Your task to perform on an android device: Clear all items from cart on target. Image 0: 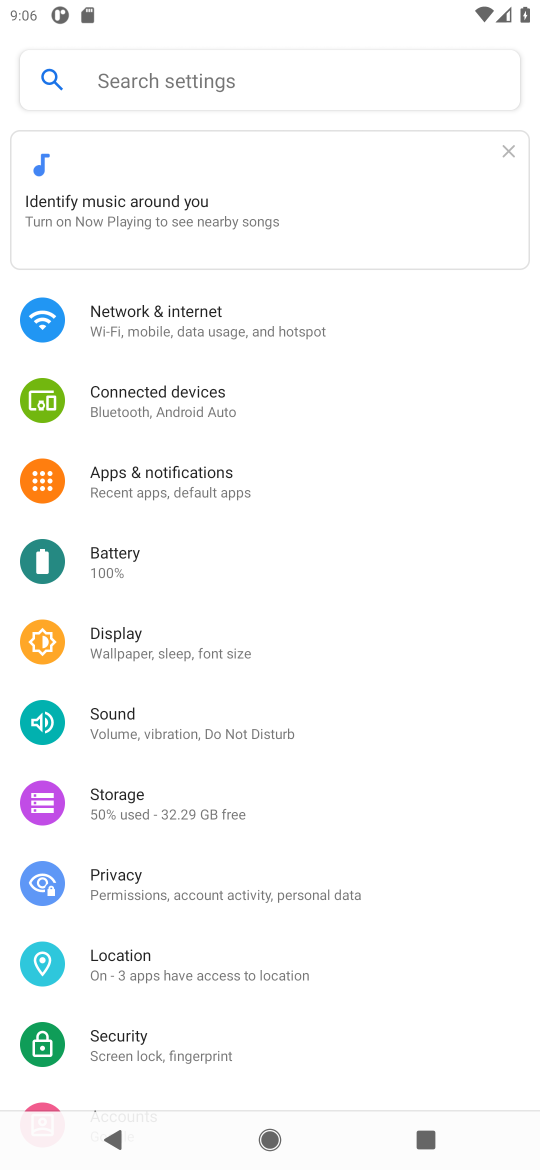
Step 0: press home button
Your task to perform on an android device: Clear all items from cart on target. Image 1: 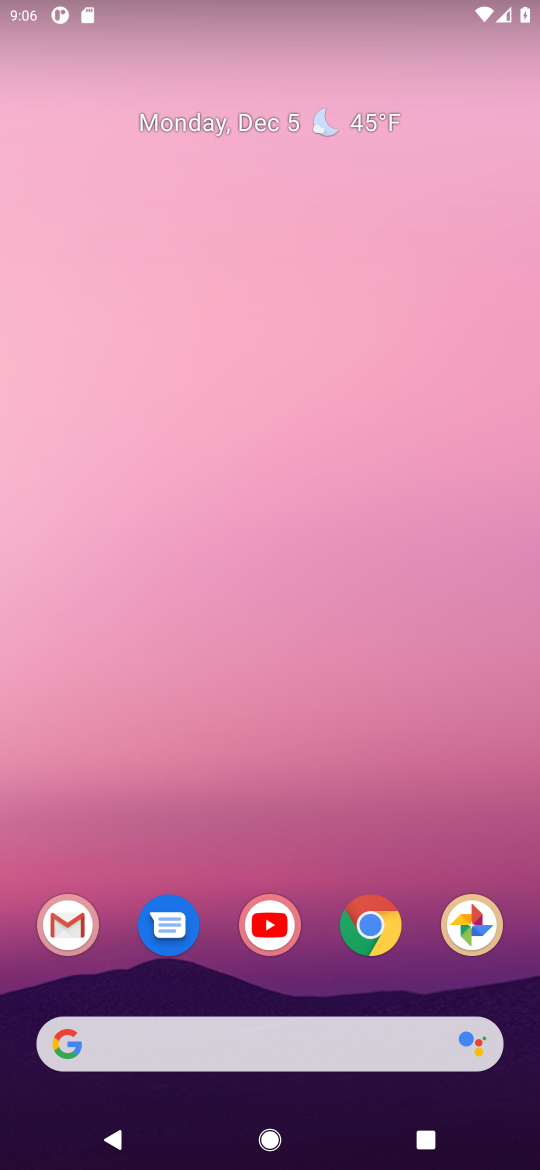
Step 1: click (376, 925)
Your task to perform on an android device: Clear all items from cart on target. Image 2: 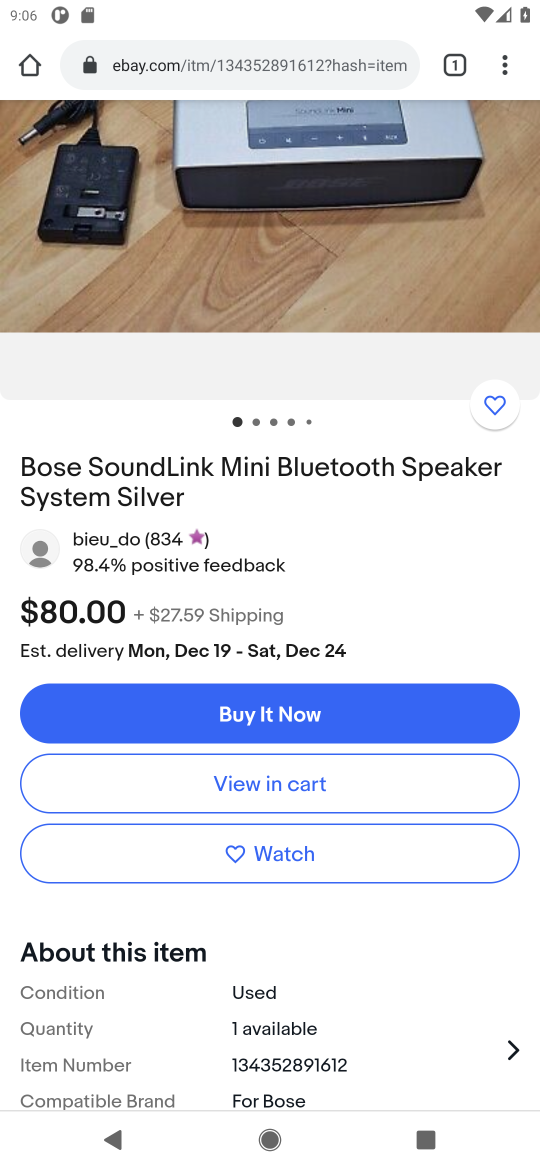
Step 2: click (249, 62)
Your task to perform on an android device: Clear all items from cart on target. Image 3: 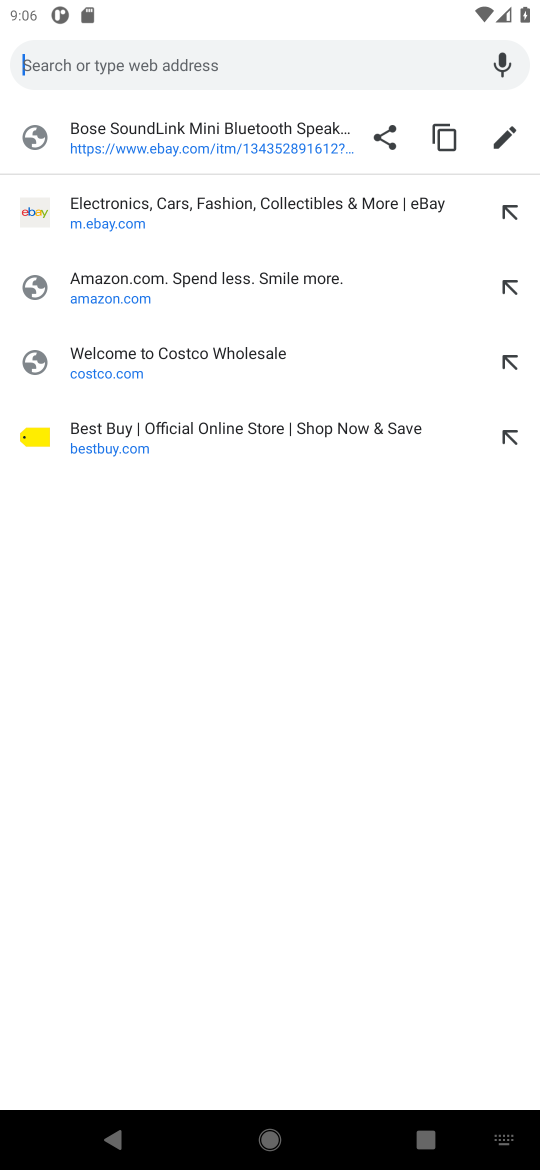
Step 3: type "target.com"
Your task to perform on an android device: Clear all items from cart on target. Image 4: 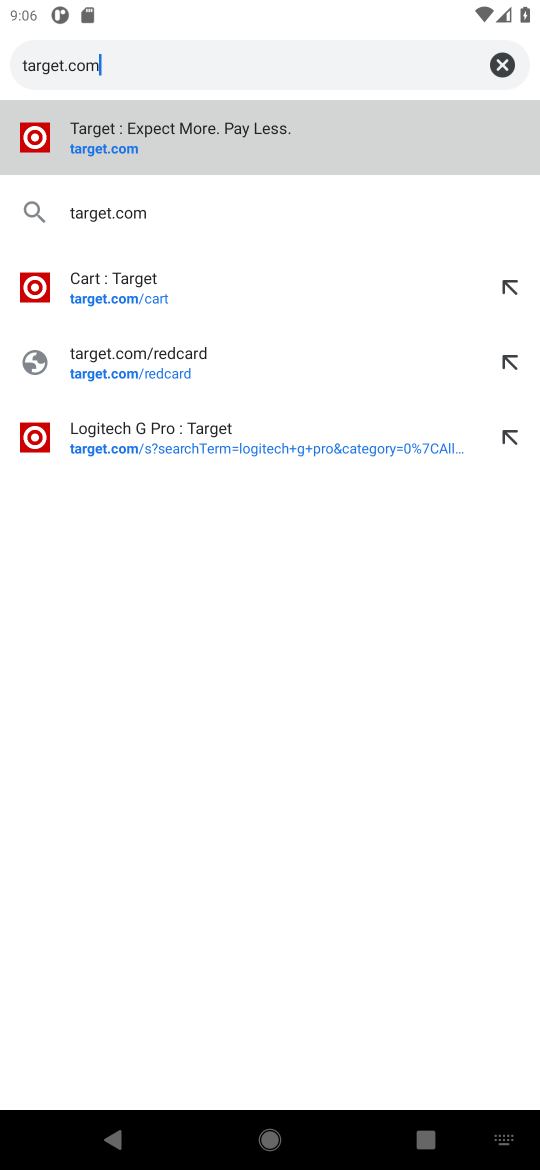
Step 4: click (95, 150)
Your task to perform on an android device: Clear all items from cart on target. Image 5: 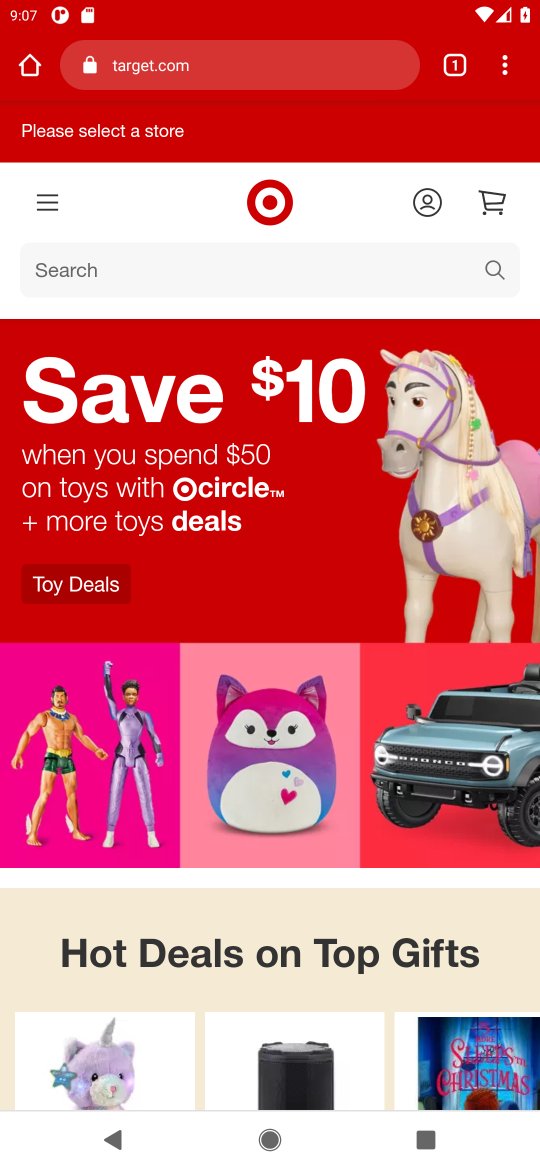
Step 5: click (483, 199)
Your task to perform on an android device: Clear all items from cart on target. Image 6: 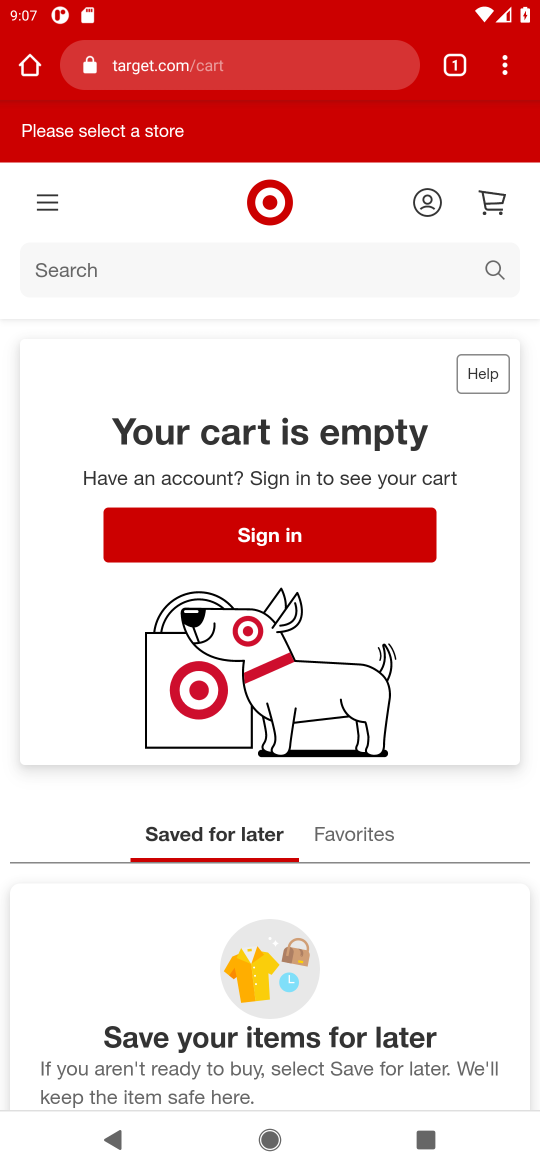
Step 6: task complete